Your task to perform on an android device: check google app version Image 0: 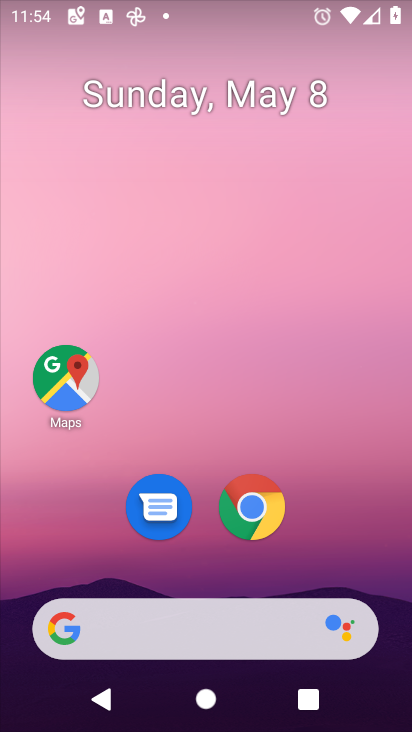
Step 0: drag from (225, 501) to (156, 17)
Your task to perform on an android device: check google app version Image 1: 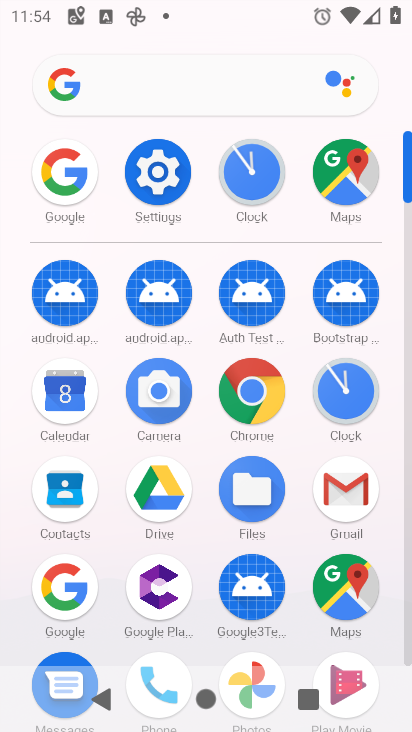
Step 1: click (57, 584)
Your task to perform on an android device: check google app version Image 2: 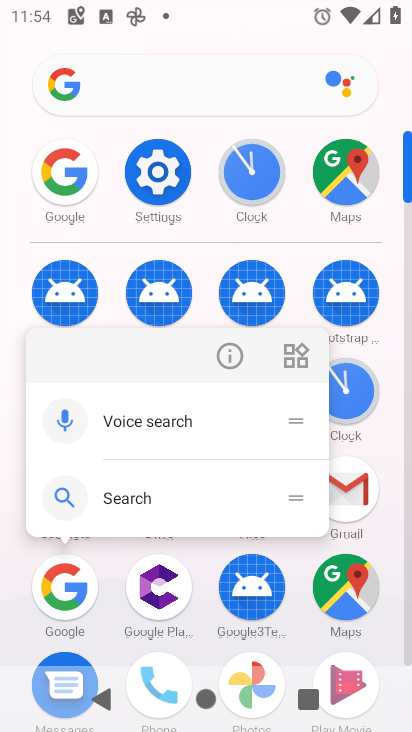
Step 2: click (236, 351)
Your task to perform on an android device: check google app version Image 3: 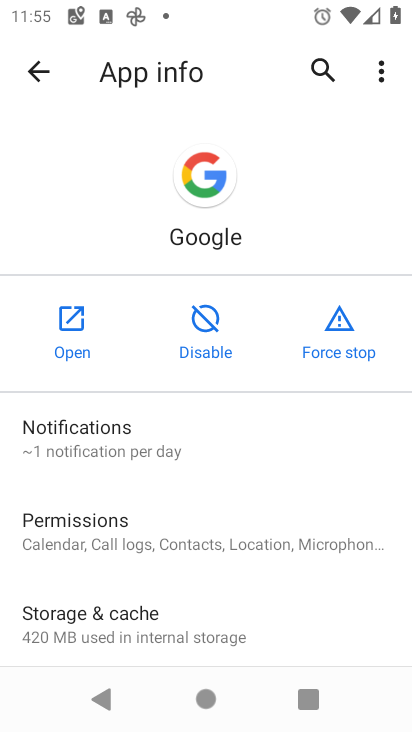
Step 3: drag from (219, 507) to (248, 0)
Your task to perform on an android device: check google app version Image 4: 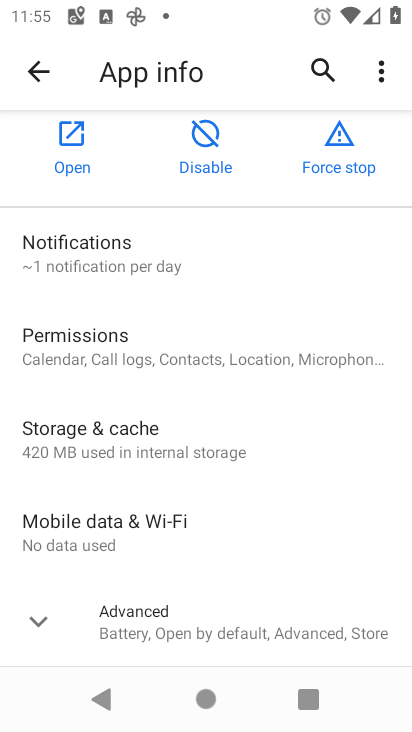
Step 4: click (208, 633)
Your task to perform on an android device: check google app version Image 5: 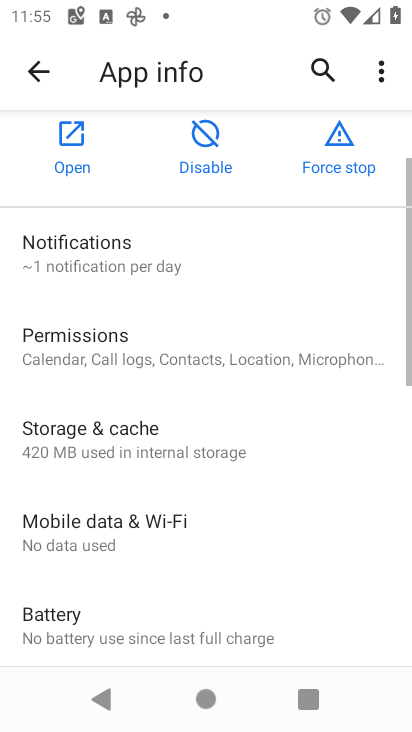
Step 5: task complete